Your task to perform on an android device: move an email to a new category in the gmail app Image 0: 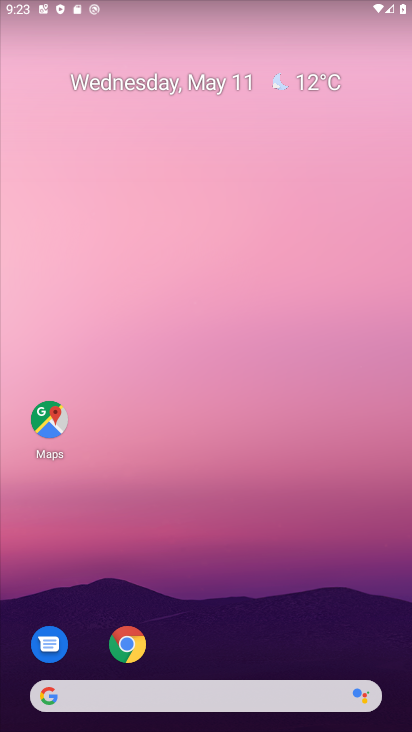
Step 0: drag from (183, 627) to (157, 313)
Your task to perform on an android device: move an email to a new category in the gmail app Image 1: 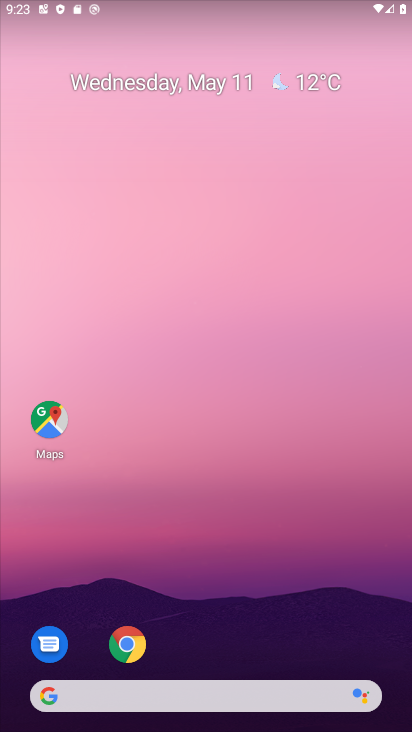
Step 1: drag from (227, 649) to (199, 94)
Your task to perform on an android device: move an email to a new category in the gmail app Image 2: 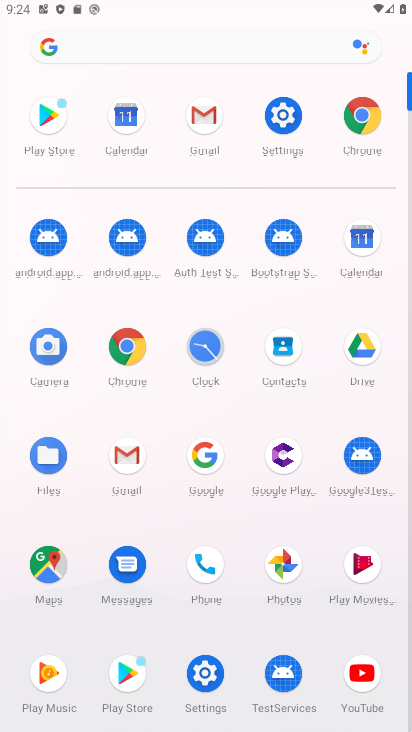
Step 2: click (212, 123)
Your task to perform on an android device: move an email to a new category in the gmail app Image 3: 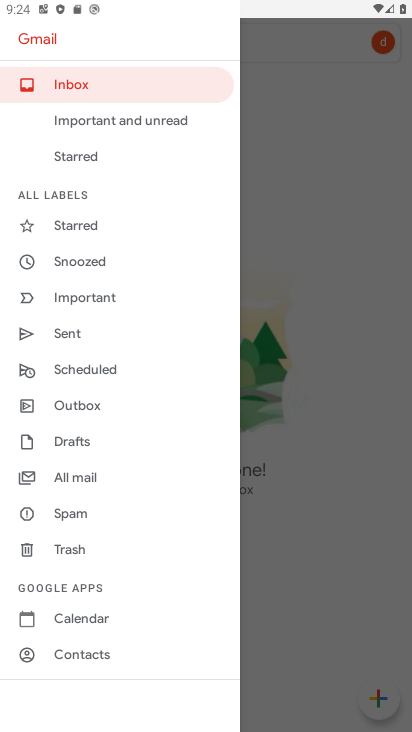
Step 3: click (328, 218)
Your task to perform on an android device: move an email to a new category in the gmail app Image 4: 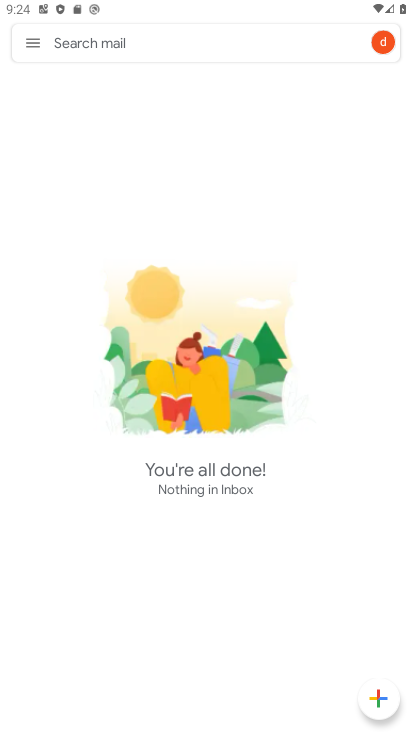
Step 4: task complete